Your task to perform on an android device: Go to internet settings Image 0: 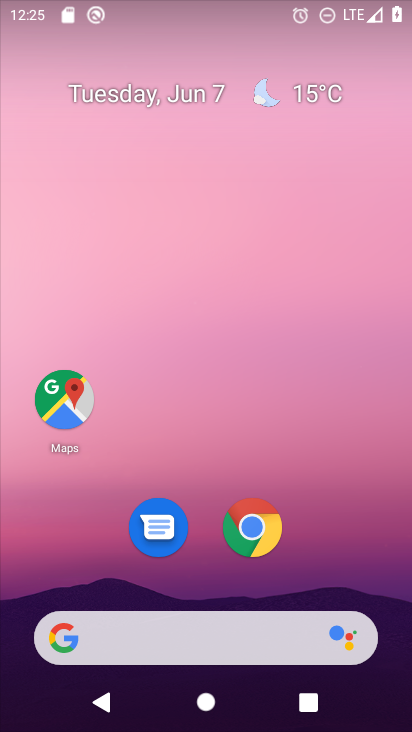
Step 0: drag from (373, 569) to (366, 134)
Your task to perform on an android device: Go to internet settings Image 1: 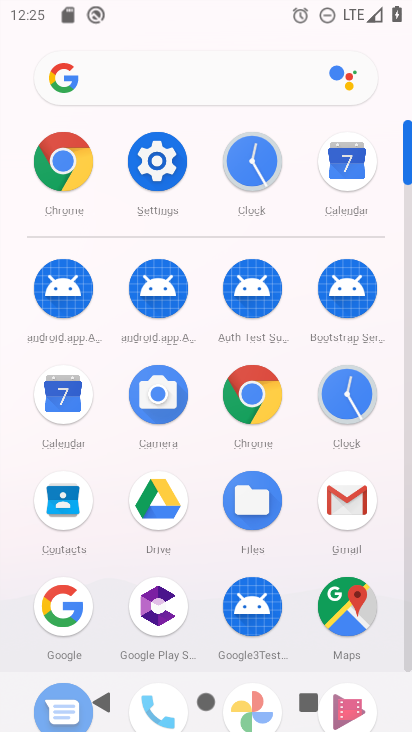
Step 1: click (158, 179)
Your task to perform on an android device: Go to internet settings Image 2: 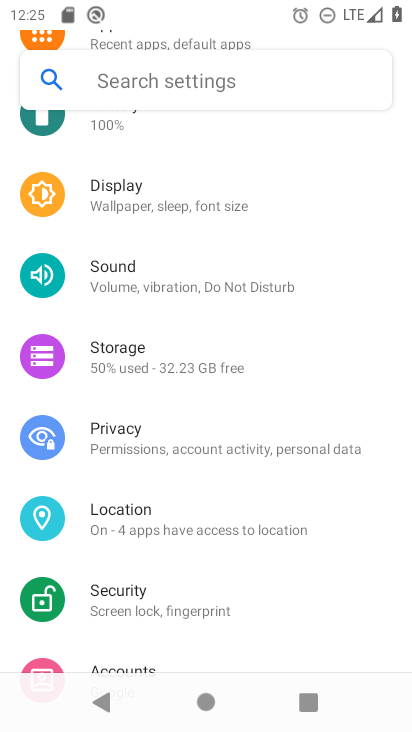
Step 2: drag from (340, 217) to (336, 459)
Your task to perform on an android device: Go to internet settings Image 3: 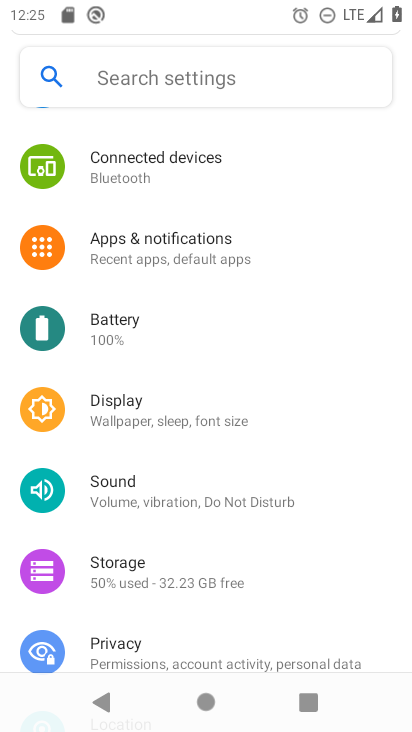
Step 3: drag from (325, 215) to (339, 418)
Your task to perform on an android device: Go to internet settings Image 4: 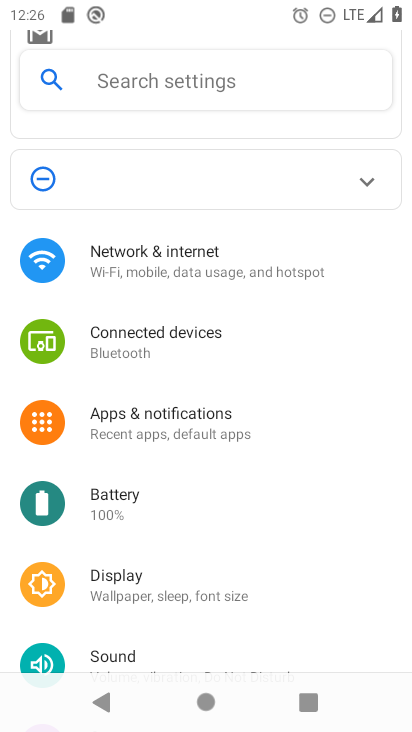
Step 4: drag from (341, 237) to (353, 444)
Your task to perform on an android device: Go to internet settings Image 5: 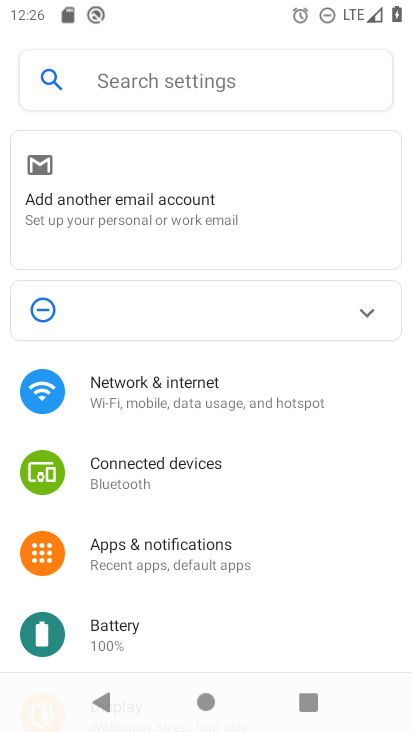
Step 5: drag from (344, 482) to (345, 373)
Your task to perform on an android device: Go to internet settings Image 6: 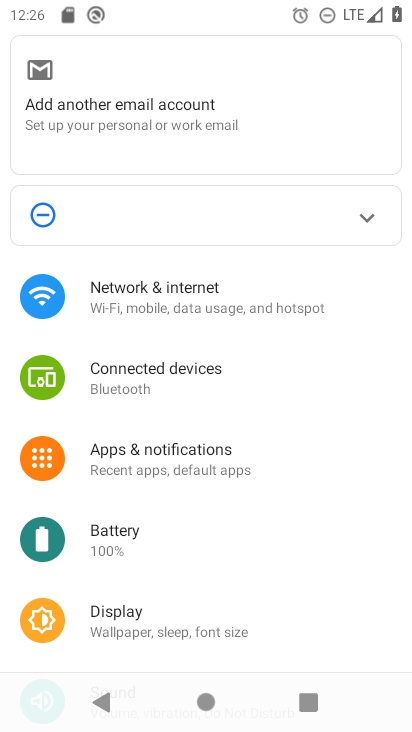
Step 6: drag from (334, 524) to (332, 327)
Your task to perform on an android device: Go to internet settings Image 7: 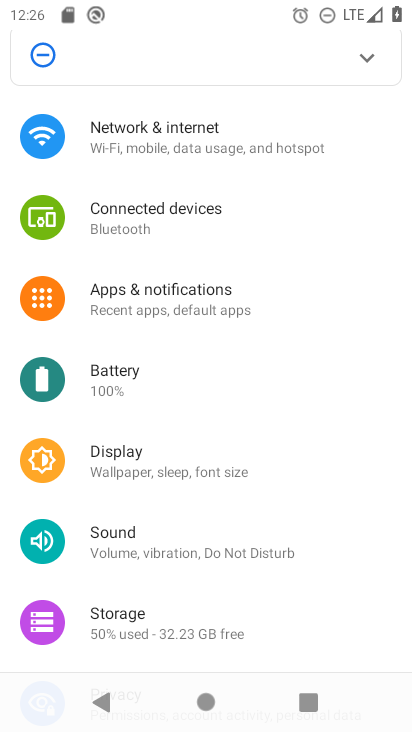
Step 7: drag from (341, 522) to (341, 352)
Your task to perform on an android device: Go to internet settings Image 8: 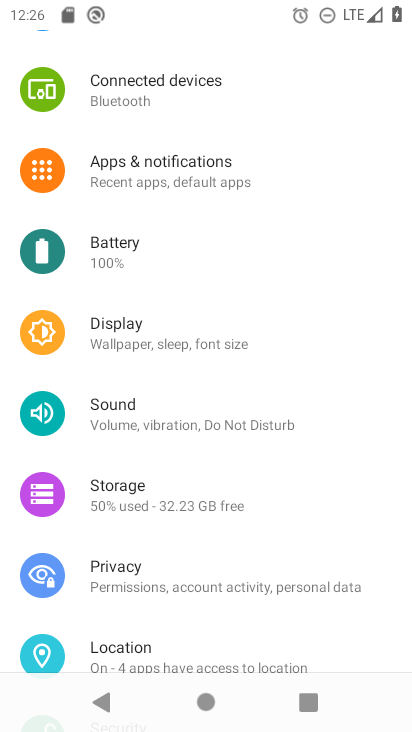
Step 8: drag from (354, 514) to (354, 369)
Your task to perform on an android device: Go to internet settings Image 9: 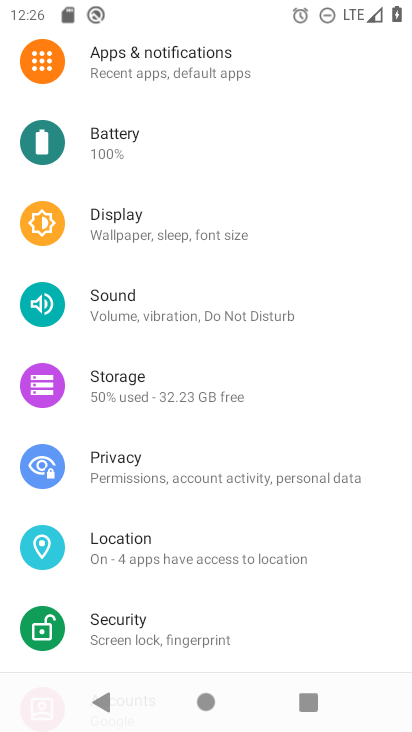
Step 9: drag from (306, 544) to (310, 372)
Your task to perform on an android device: Go to internet settings Image 10: 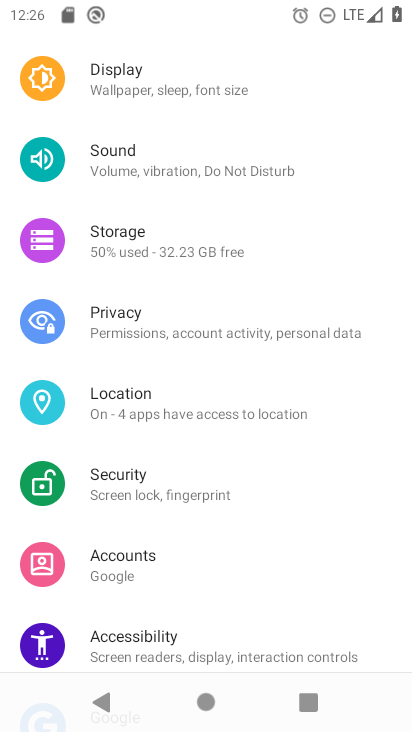
Step 10: drag from (308, 526) to (326, 349)
Your task to perform on an android device: Go to internet settings Image 11: 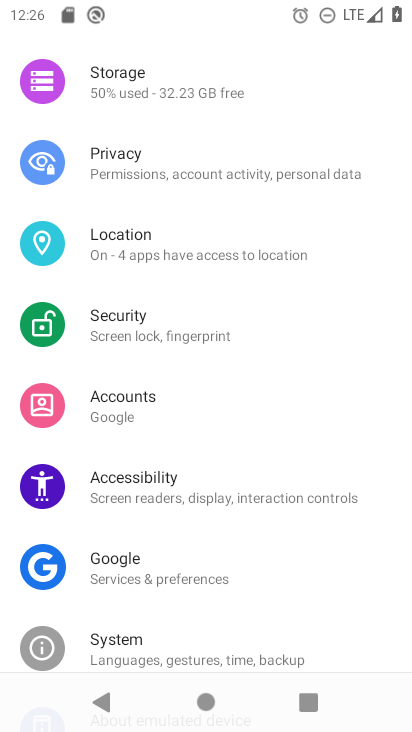
Step 11: drag from (320, 581) to (340, 336)
Your task to perform on an android device: Go to internet settings Image 12: 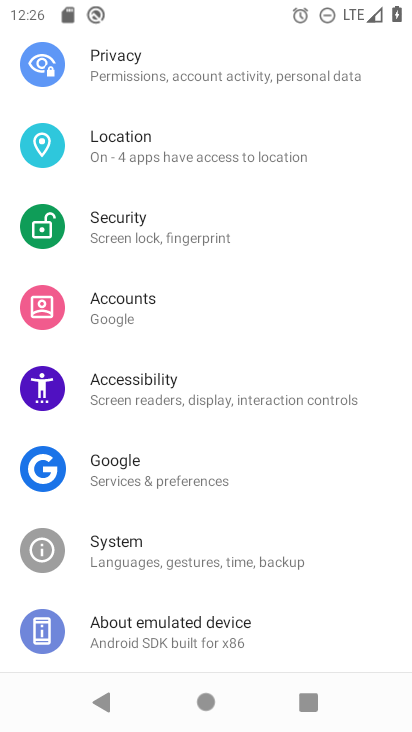
Step 12: drag from (327, 265) to (329, 490)
Your task to perform on an android device: Go to internet settings Image 13: 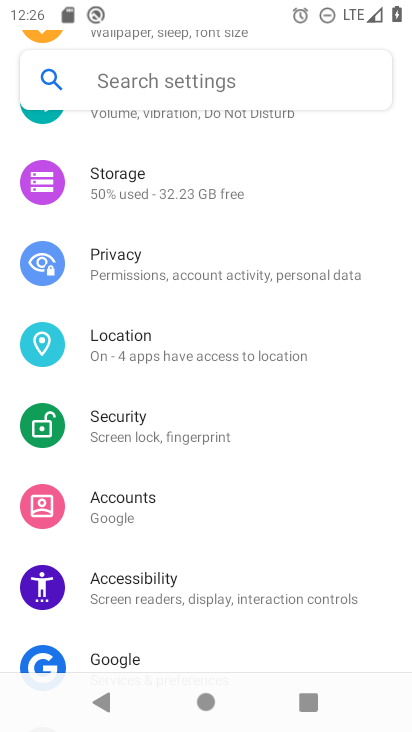
Step 13: drag from (342, 192) to (348, 400)
Your task to perform on an android device: Go to internet settings Image 14: 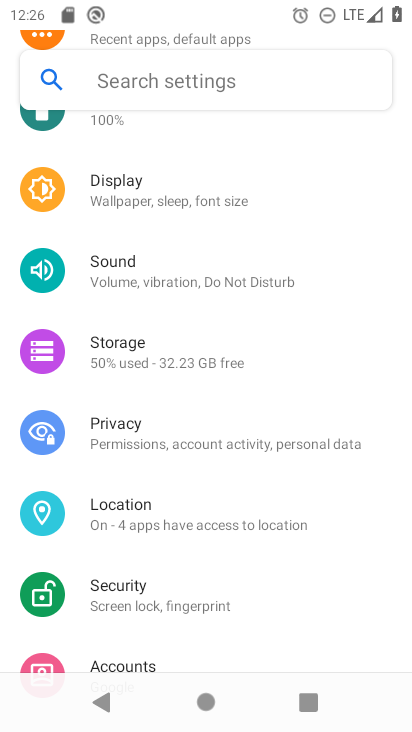
Step 14: drag from (352, 242) to (352, 466)
Your task to perform on an android device: Go to internet settings Image 15: 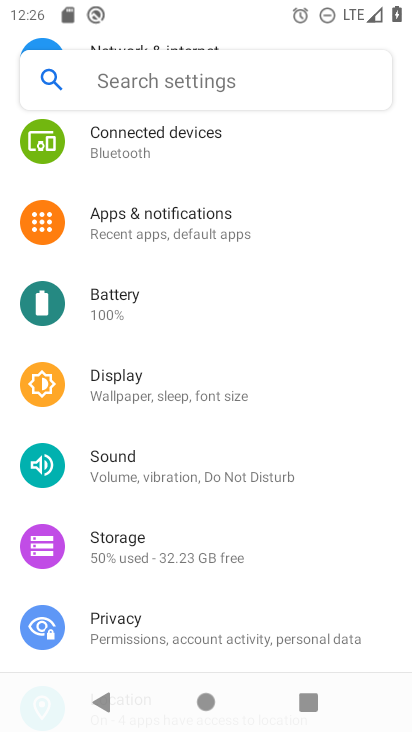
Step 15: drag from (351, 207) to (330, 403)
Your task to perform on an android device: Go to internet settings Image 16: 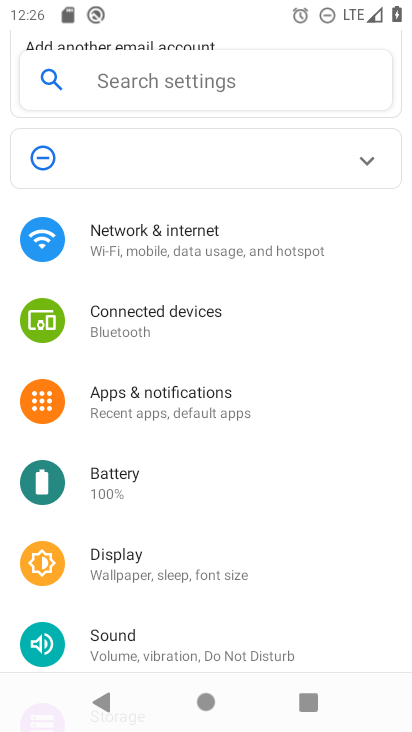
Step 16: click (230, 242)
Your task to perform on an android device: Go to internet settings Image 17: 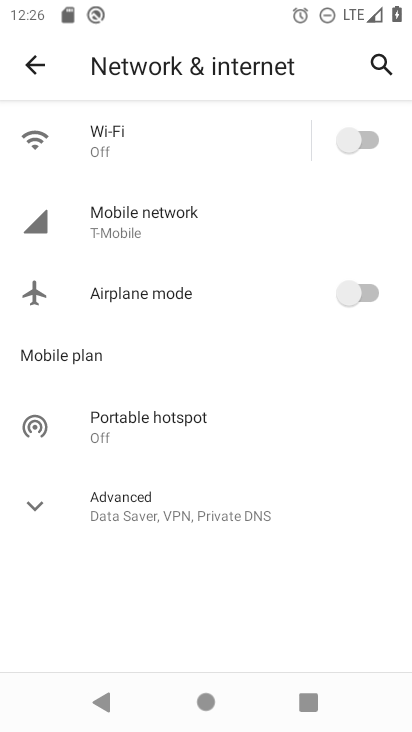
Step 17: task complete